Your task to perform on an android device: toggle translation in the chrome app Image 0: 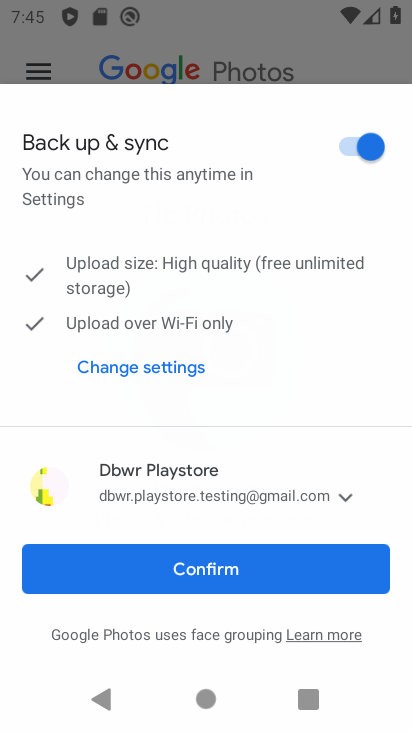
Step 0: press back button
Your task to perform on an android device: toggle translation in the chrome app Image 1: 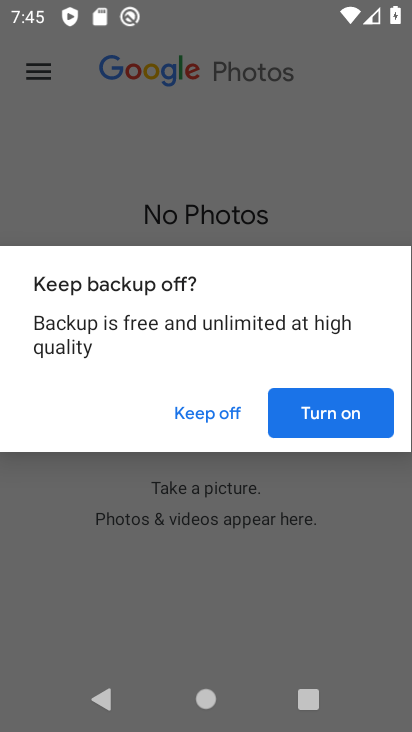
Step 1: click (341, 411)
Your task to perform on an android device: toggle translation in the chrome app Image 2: 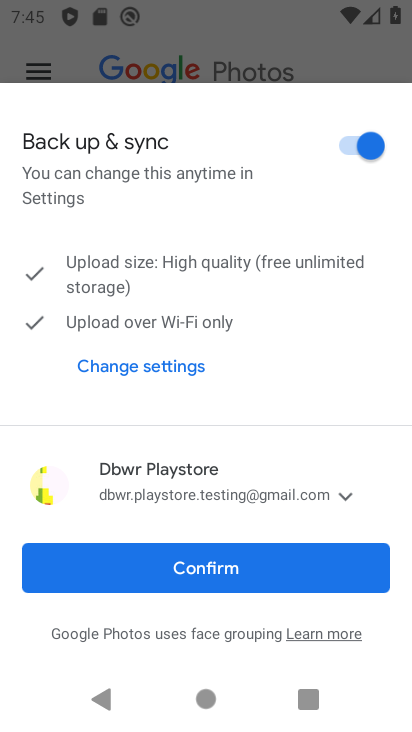
Step 2: click (220, 571)
Your task to perform on an android device: toggle translation in the chrome app Image 3: 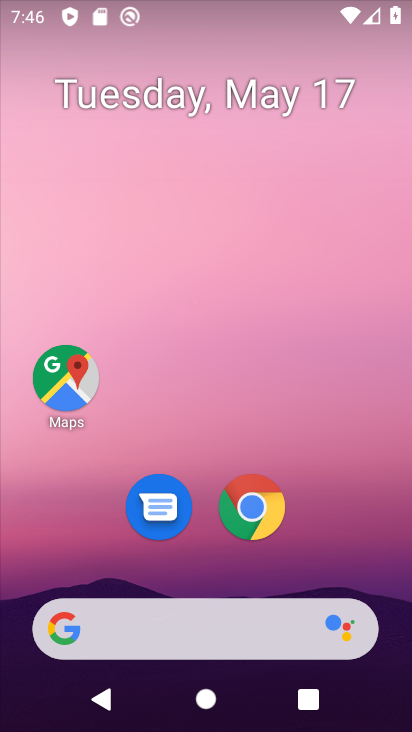
Step 3: drag from (306, 471) to (275, 253)
Your task to perform on an android device: toggle translation in the chrome app Image 4: 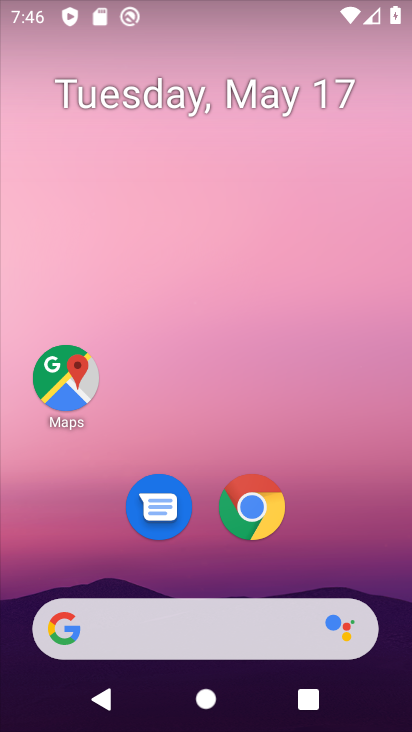
Step 4: drag from (281, 682) to (195, 22)
Your task to perform on an android device: toggle translation in the chrome app Image 5: 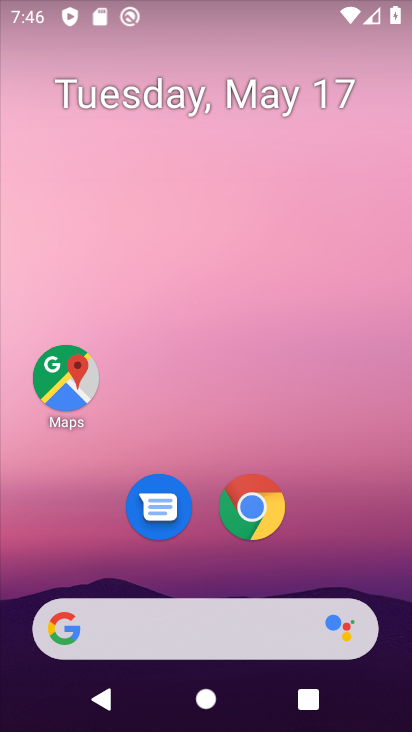
Step 5: drag from (289, 697) to (228, 83)
Your task to perform on an android device: toggle translation in the chrome app Image 6: 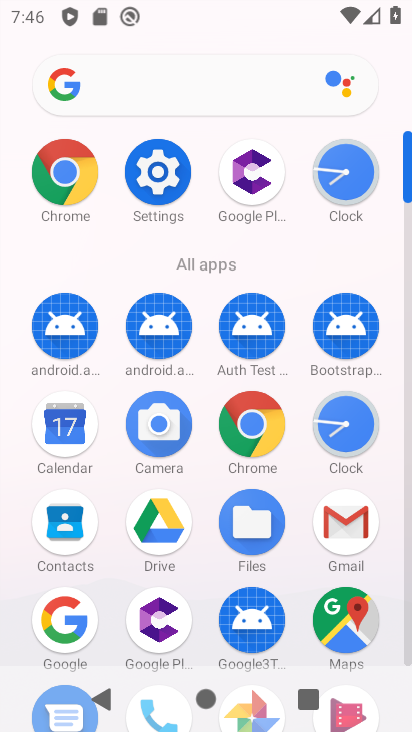
Step 6: drag from (376, 559) to (363, 235)
Your task to perform on an android device: toggle translation in the chrome app Image 7: 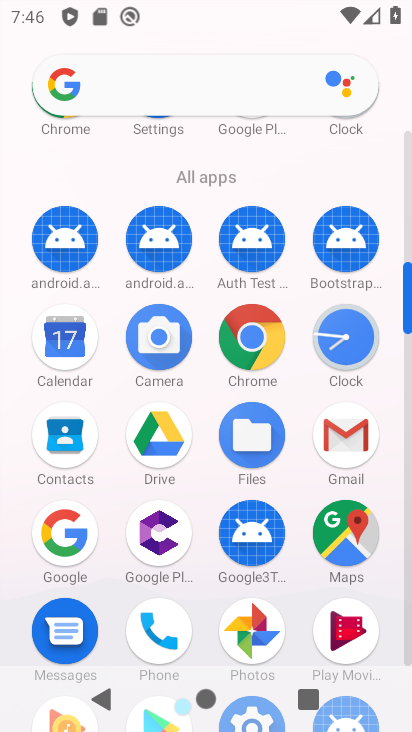
Step 7: click (259, 314)
Your task to perform on an android device: toggle translation in the chrome app Image 8: 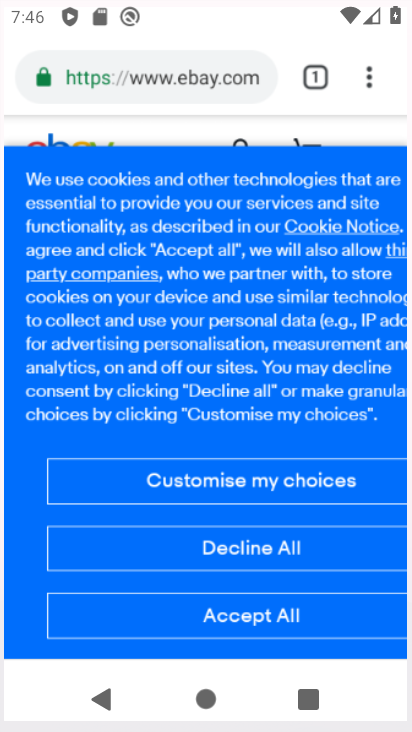
Step 8: click (251, 332)
Your task to perform on an android device: toggle translation in the chrome app Image 9: 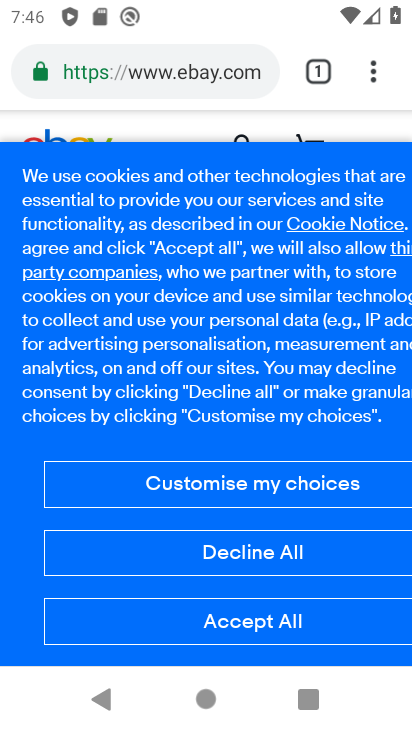
Step 9: click (367, 69)
Your task to perform on an android device: toggle translation in the chrome app Image 10: 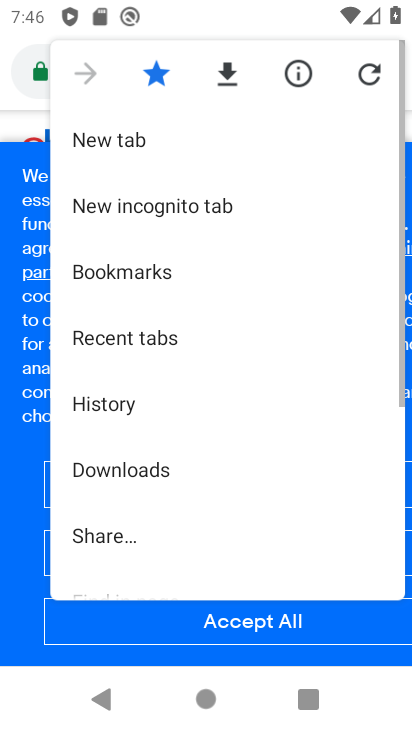
Step 10: drag from (323, 137) to (176, 515)
Your task to perform on an android device: toggle translation in the chrome app Image 11: 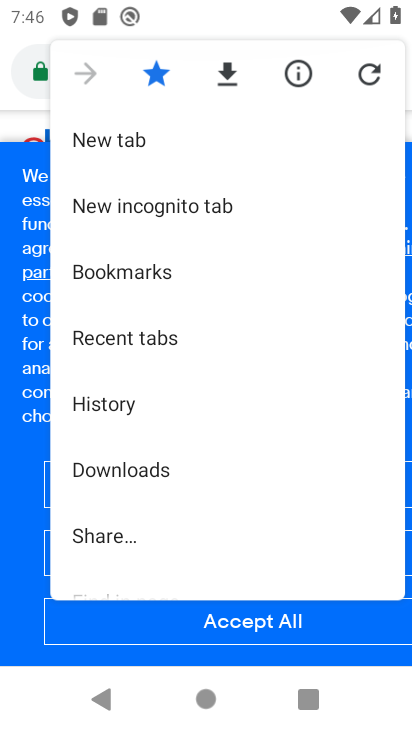
Step 11: drag from (149, 547) to (167, 22)
Your task to perform on an android device: toggle translation in the chrome app Image 12: 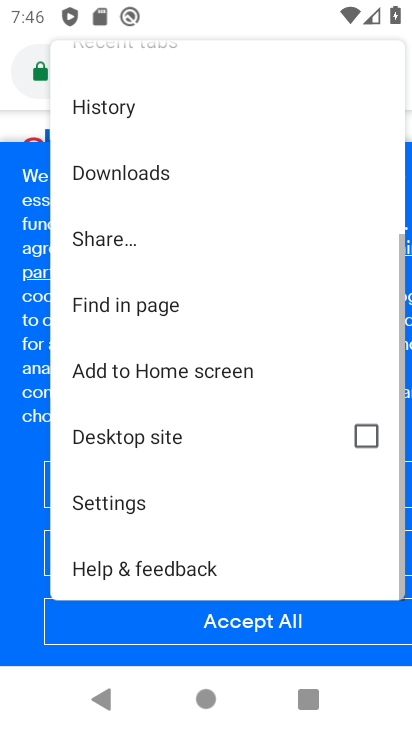
Step 12: click (118, 504)
Your task to perform on an android device: toggle translation in the chrome app Image 13: 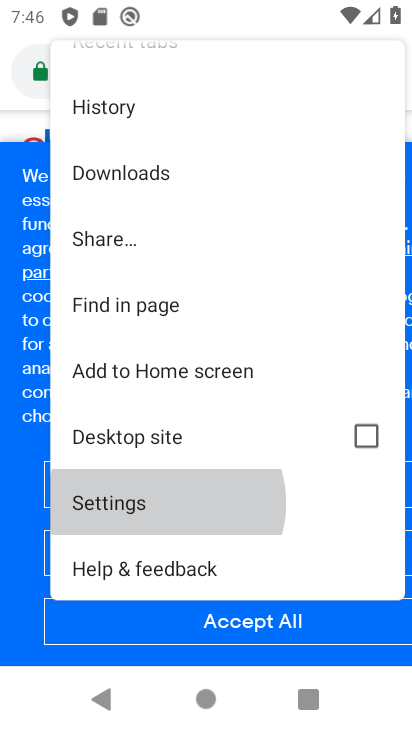
Step 13: click (118, 504)
Your task to perform on an android device: toggle translation in the chrome app Image 14: 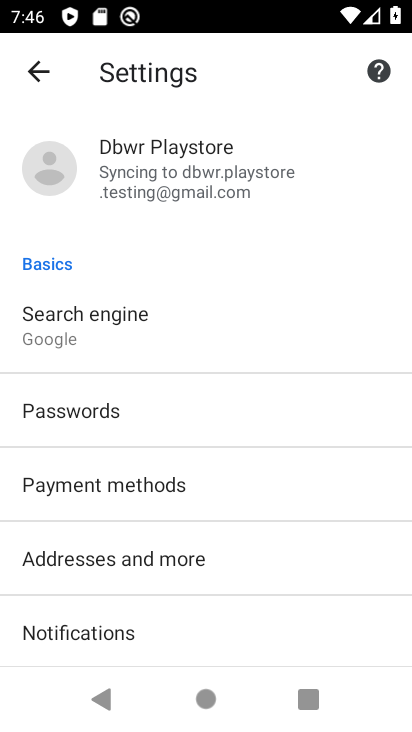
Step 14: drag from (155, 576) to (223, 39)
Your task to perform on an android device: toggle translation in the chrome app Image 15: 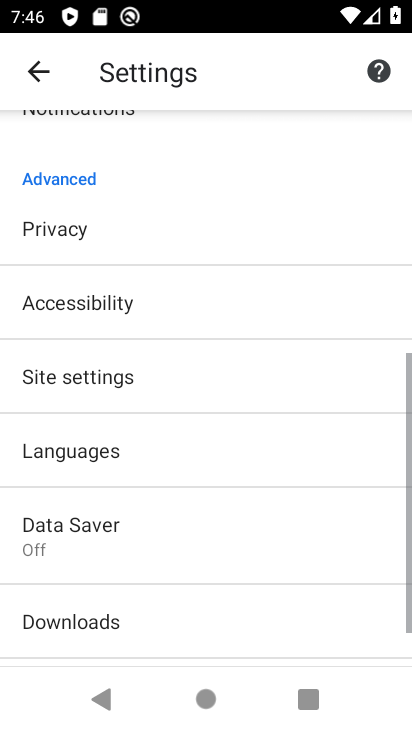
Step 15: drag from (182, 518) to (192, 15)
Your task to perform on an android device: toggle translation in the chrome app Image 16: 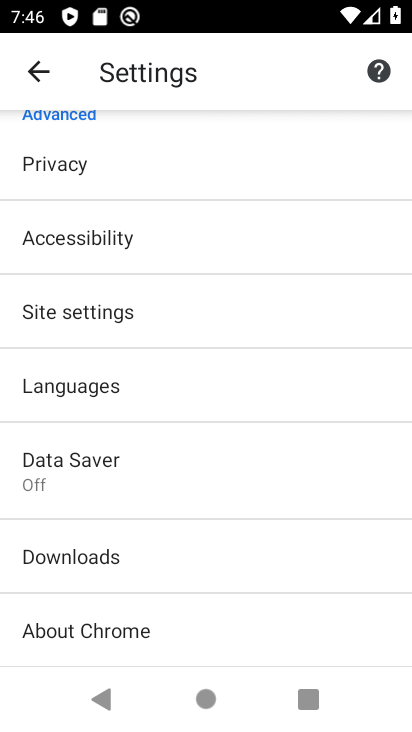
Step 16: click (68, 387)
Your task to perform on an android device: toggle translation in the chrome app Image 17: 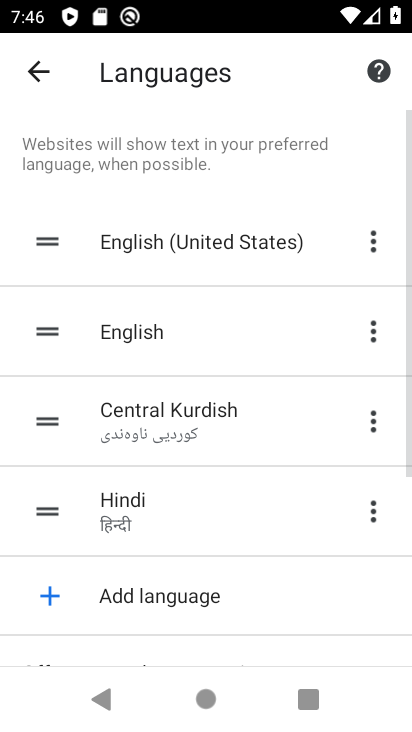
Step 17: drag from (169, 539) to (101, 64)
Your task to perform on an android device: toggle translation in the chrome app Image 18: 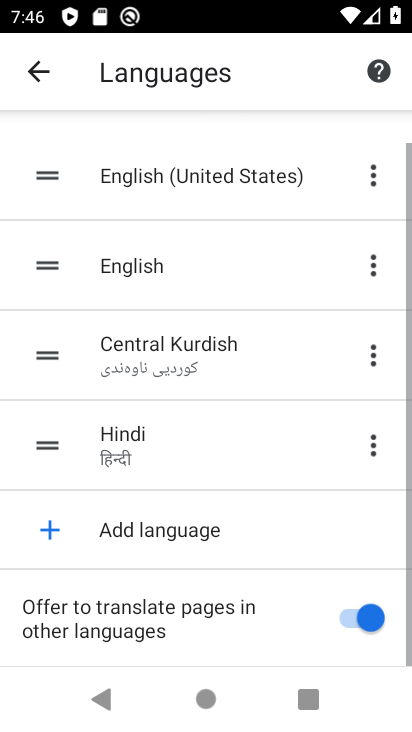
Step 18: drag from (273, 431) to (300, 106)
Your task to perform on an android device: toggle translation in the chrome app Image 19: 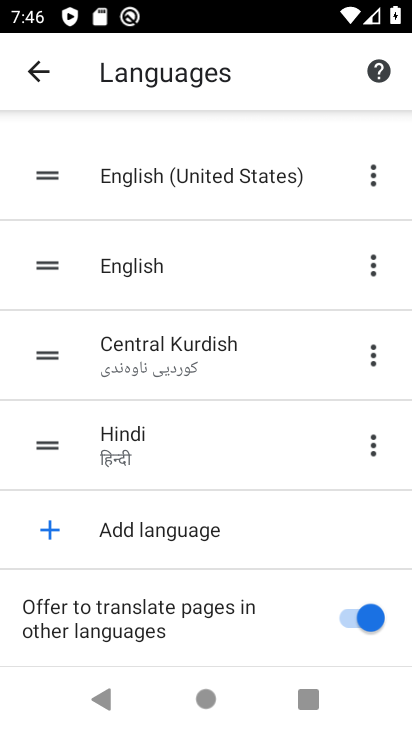
Step 19: click (361, 622)
Your task to perform on an android device: toggle translation in the chrome app Image 20: 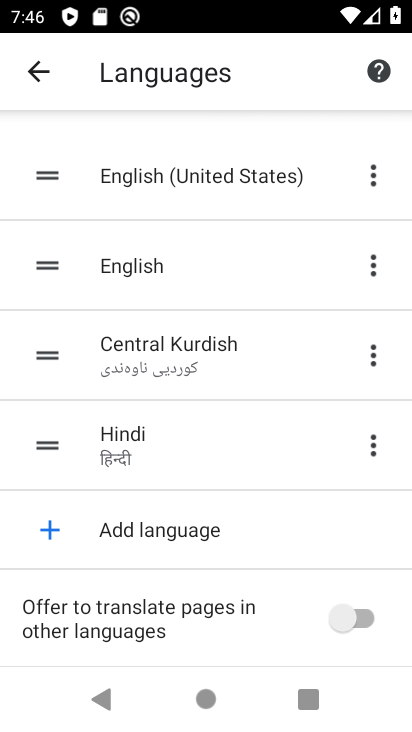
Step 20: task complete